Your task to perform on an android device: delete browsing data in the chrome app Image 0: 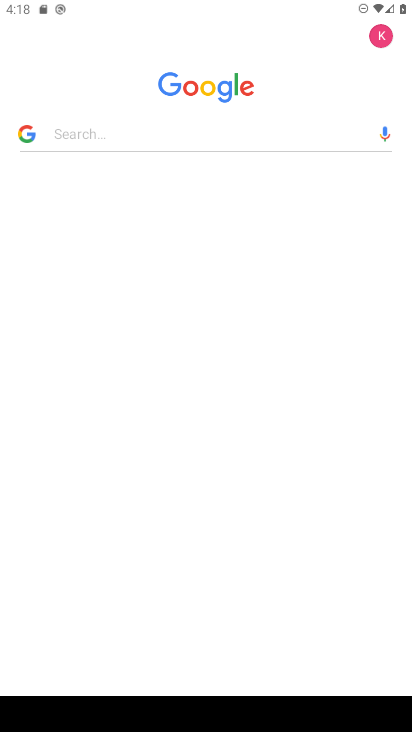
Step 0: press home button
Your task to perform on an android device: delete browsing data in the chrome app Image 1: 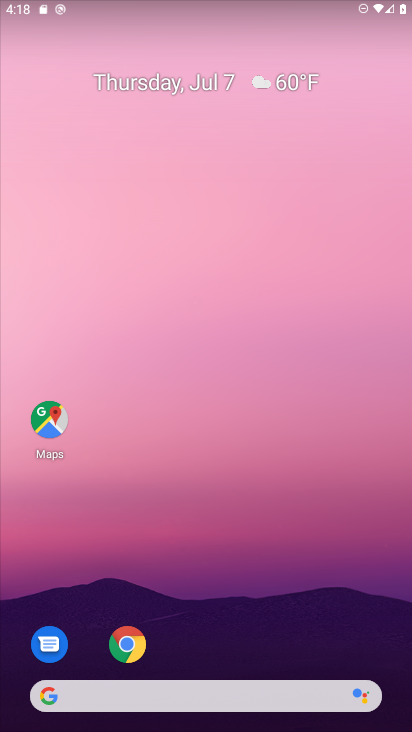
Step 1: click (126, 645)
Your task to perform on an android device: delete browsing data in the chrome app Image 2: 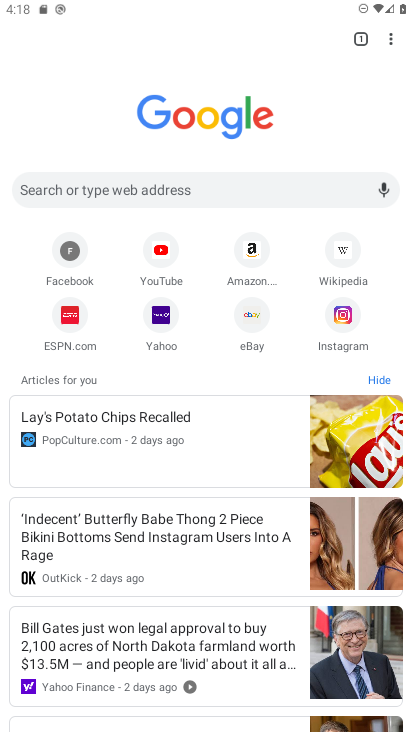
Step 2: click (386, 43)
Your task to perform on an android device: delete browsing data in the chrome app Image 3: 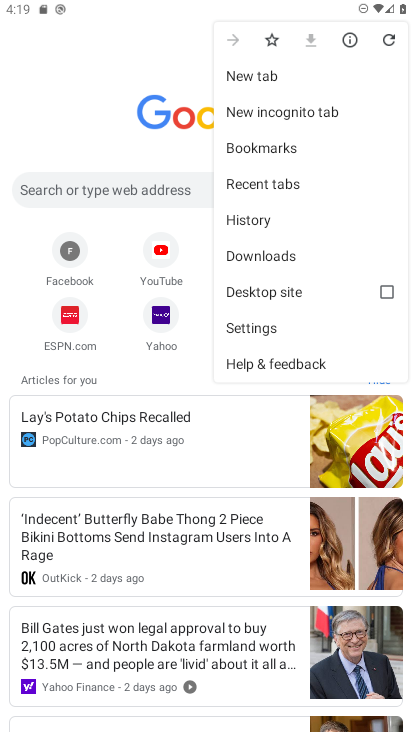
Step 3: click (270, 228)
Your task to perform on an android device: delete browsing data in the chrome app Image 4: 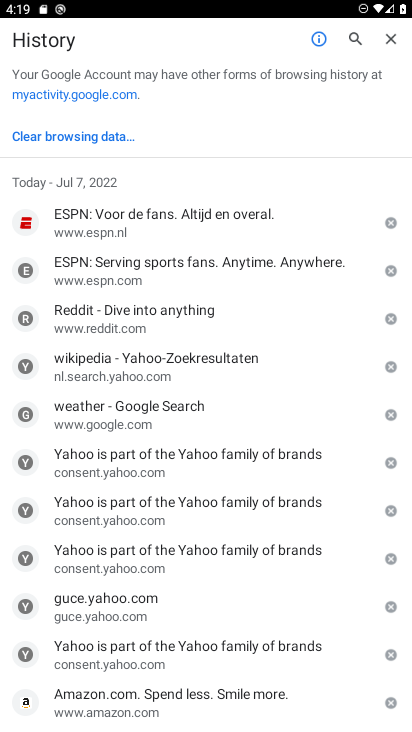
Step 4: click (109, 135)
Your task to perform on an android device: delete browsing data in the chrome app Image 5: 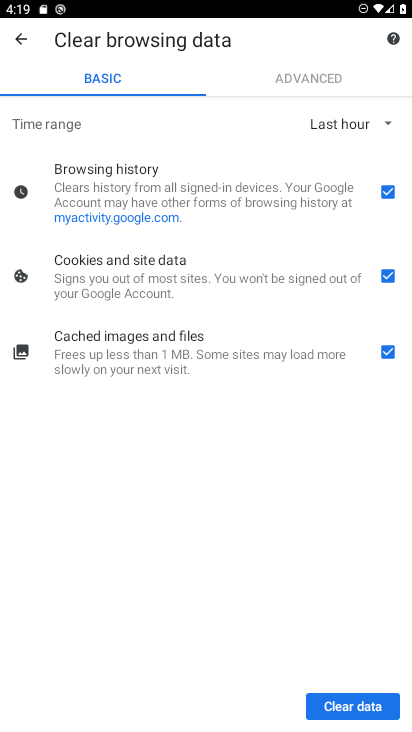
Step 5: click (391, 356)
Your task to perform on an android device: delete browsing data in the chrome app Image 6: 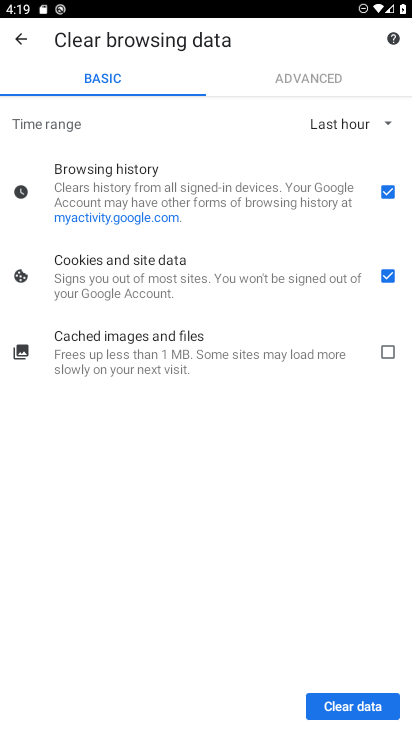
Step 6: click (385, 280)
Your task to perform on an android device: delete browsing data in the chrome app Image 7: 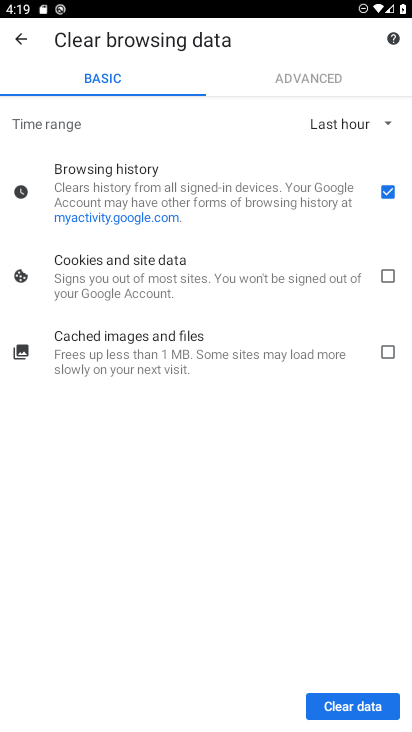
Step 7: click (347, 710)
Your task to perform on an android device: delete browsing data in the chrome app Image 8: 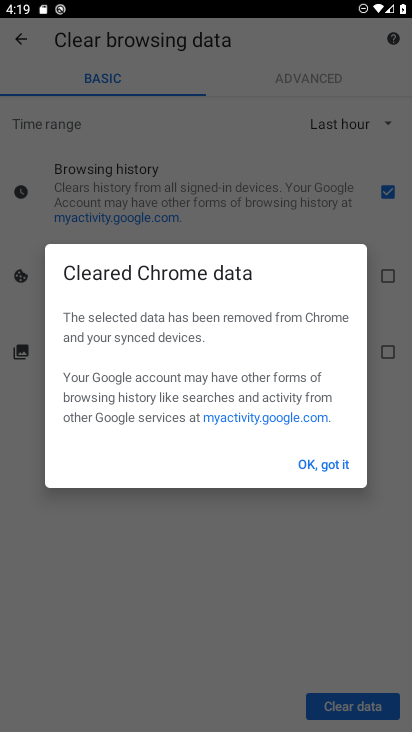
Step 8: click (322, 464)
Your task to perform on an android device: delete browsing data in the chrome app Image 9: 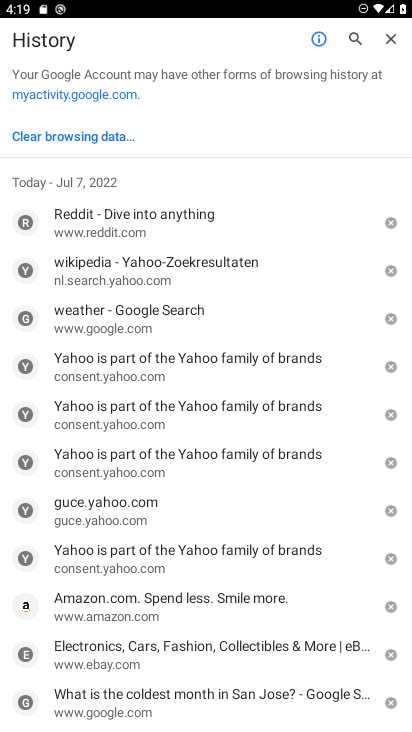
Step 9: task complete